Your task to perform on an android device: find photos in the google photos app Image 0: 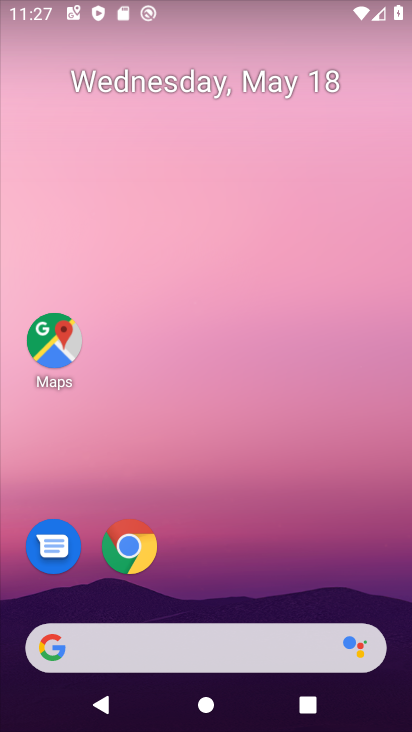
Step 0: drag from (234, 513) to (261, 61)
Your task to perform on an android device: find photos in the google photos app Image 1: 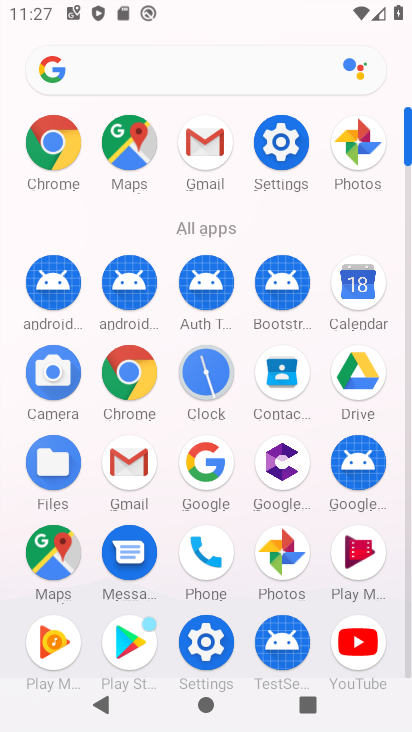
Step 1: click (359, 146)
Your task to perform on an android device: find photos in the google photos app Image 2: 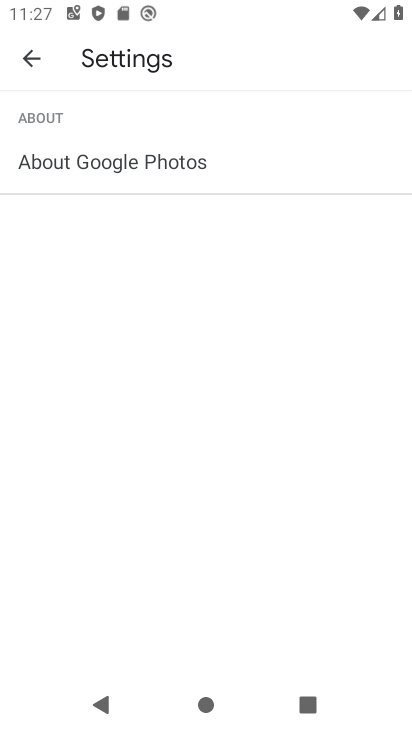
Step 2: press back button
Your task to perform on an android device: find photos in the google photos app Image 3: 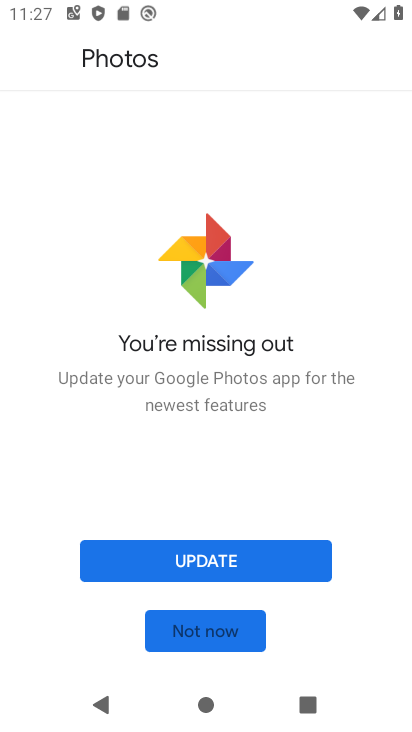
Step 3: click (210, 548)
Your task to perform on an android device: find photos in the google photos app Image 4: 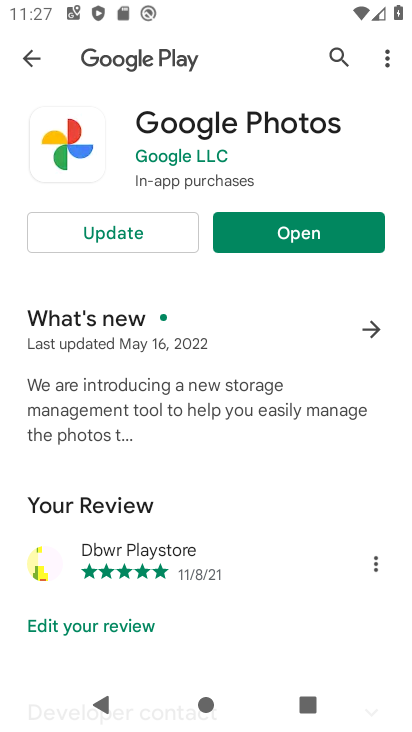
Step 4: click (115, 226)
Your task to perform on an android device: find photos in the google photos app Image 5: 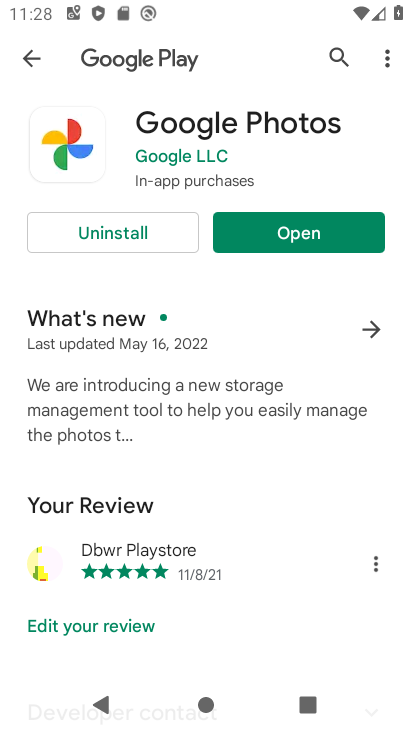
Step 5: click (286, 236)
Your task to perform on an android device: find photos in the google photos app Image 6: 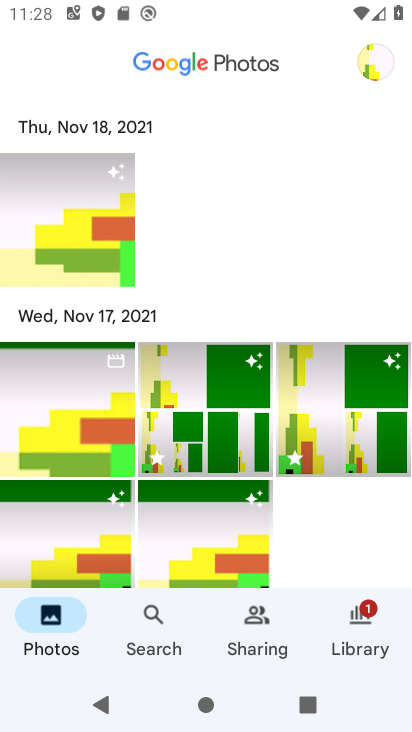
Step 6: task complete